Your task to perform on an android device: check google app version Image 0: 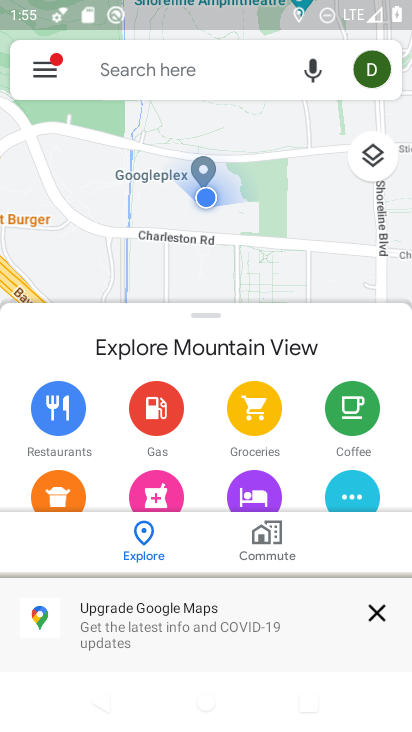
Step 0: press home button
Your task to perform on an android device: check google app version Image 1: 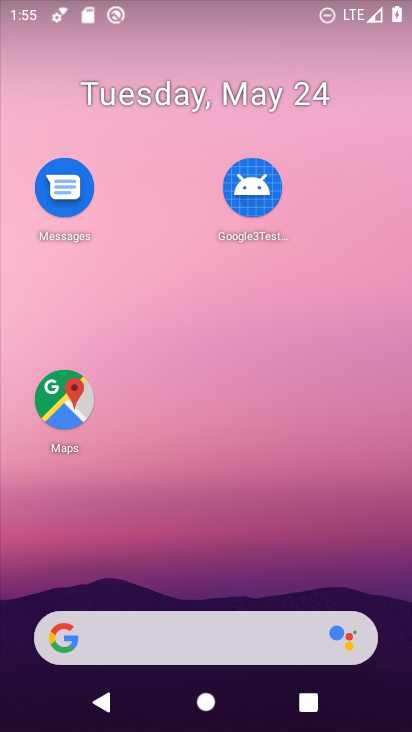
Step 1: drag from (180, 596) to (211, 6)
Your task to perform on an android device: check google app version Image 2: 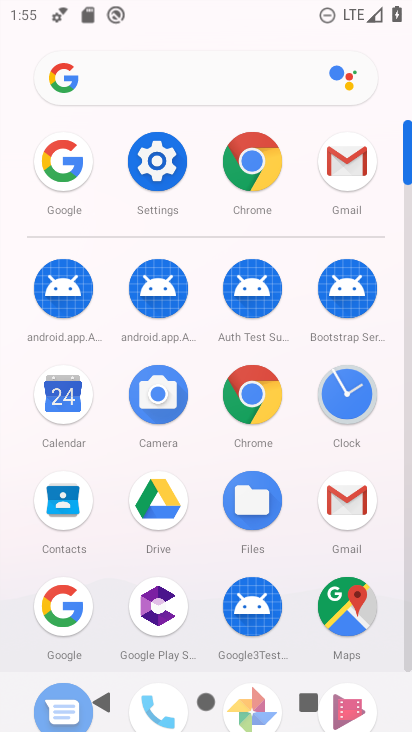
Step 2: click (61, 630)
Your task to perform on an android device: check google app version Image 3: 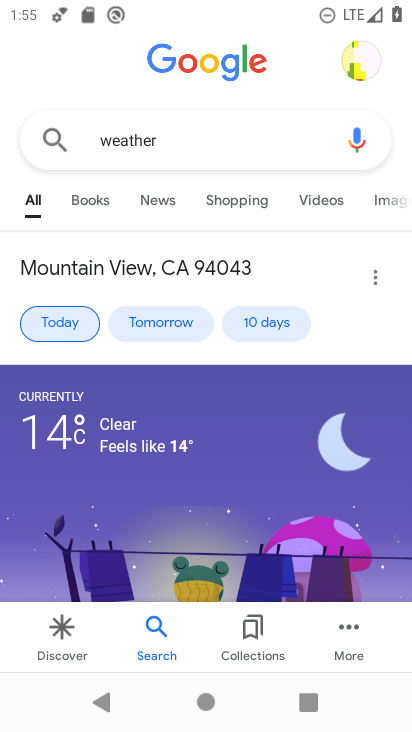
Step 3: click (344, 648)
Your task to perform on an android device: check google app version Image 4: 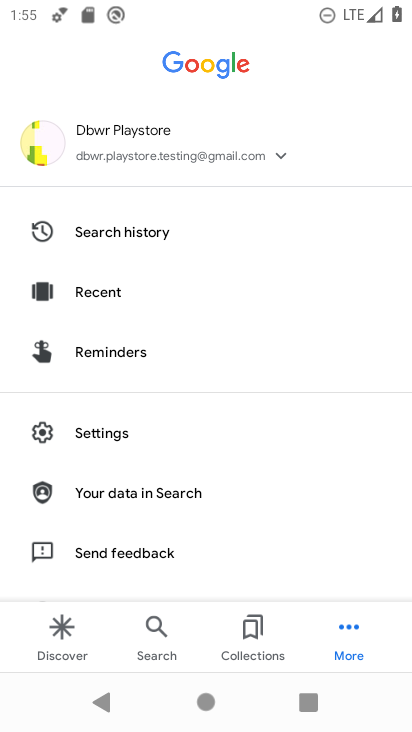
Step 4: click (111, 438)
Your task to perform on an android device: check google app version Image 5: 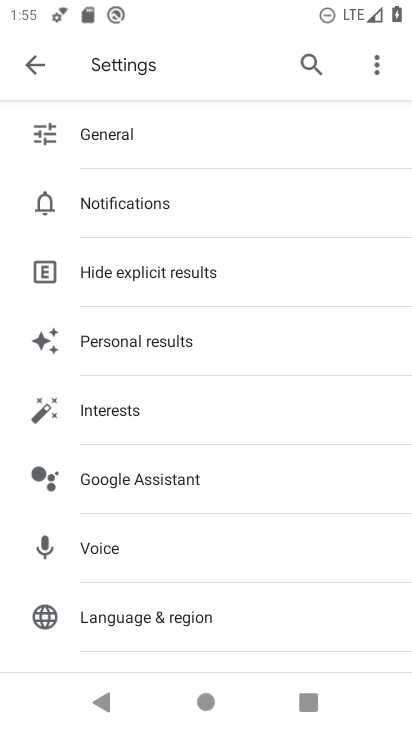
Step 5: drag from (100, 605) to (178, 207)
Your task to perform on an android device: check google app version Image 6: 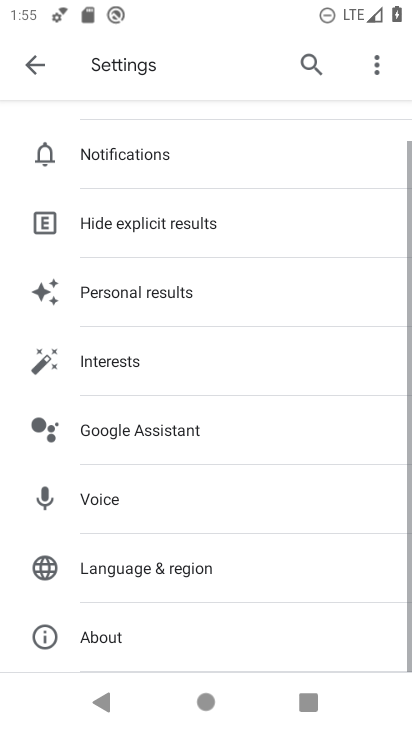
Step 6: click (88, 639)
Your task to perform on an android device: check google app version Image 7: 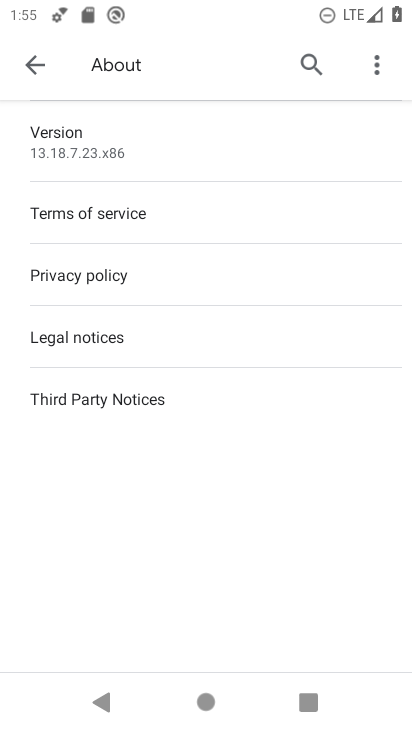
Step 7: task complete